Your task to perform on an android device: Go to accessibility settings Image 0: 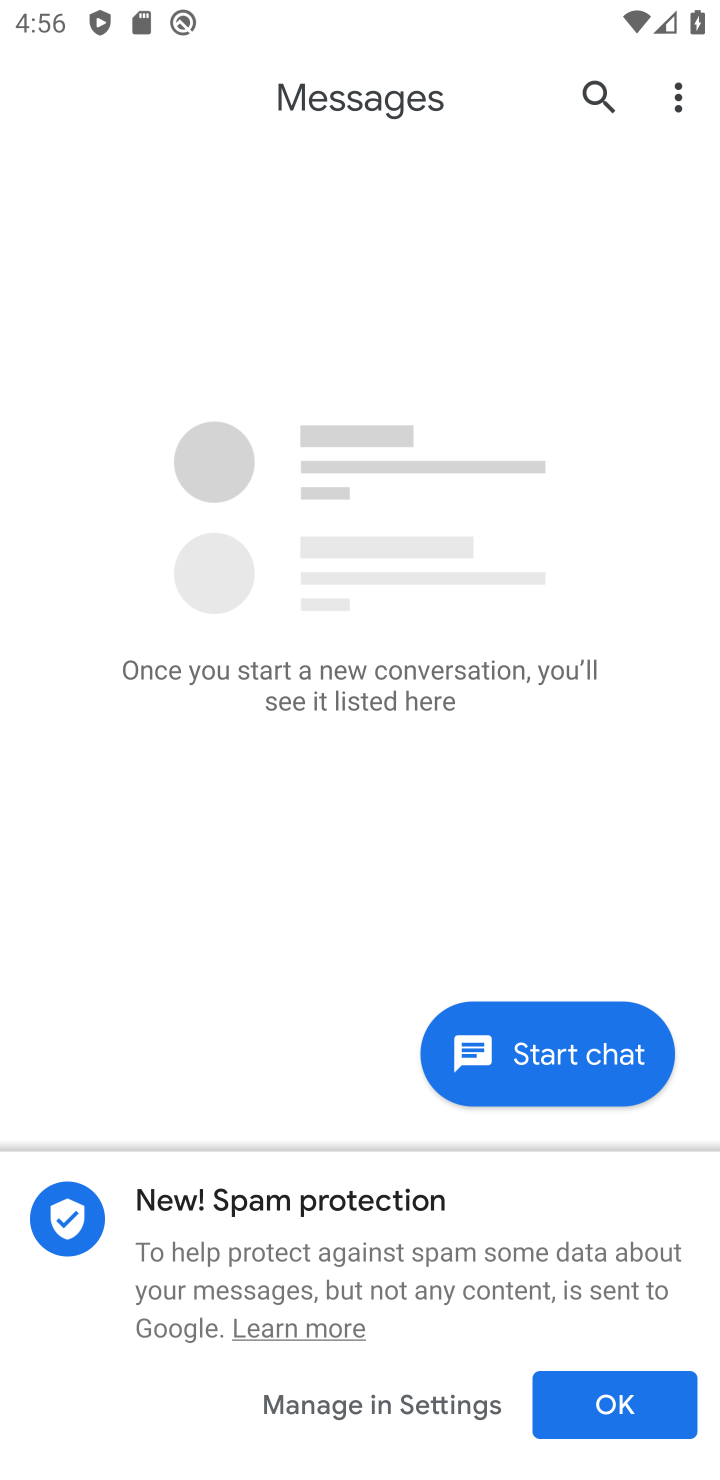
Step 0: press home button
Your task to perform on an android device: Go to accessibility settings Image 1: 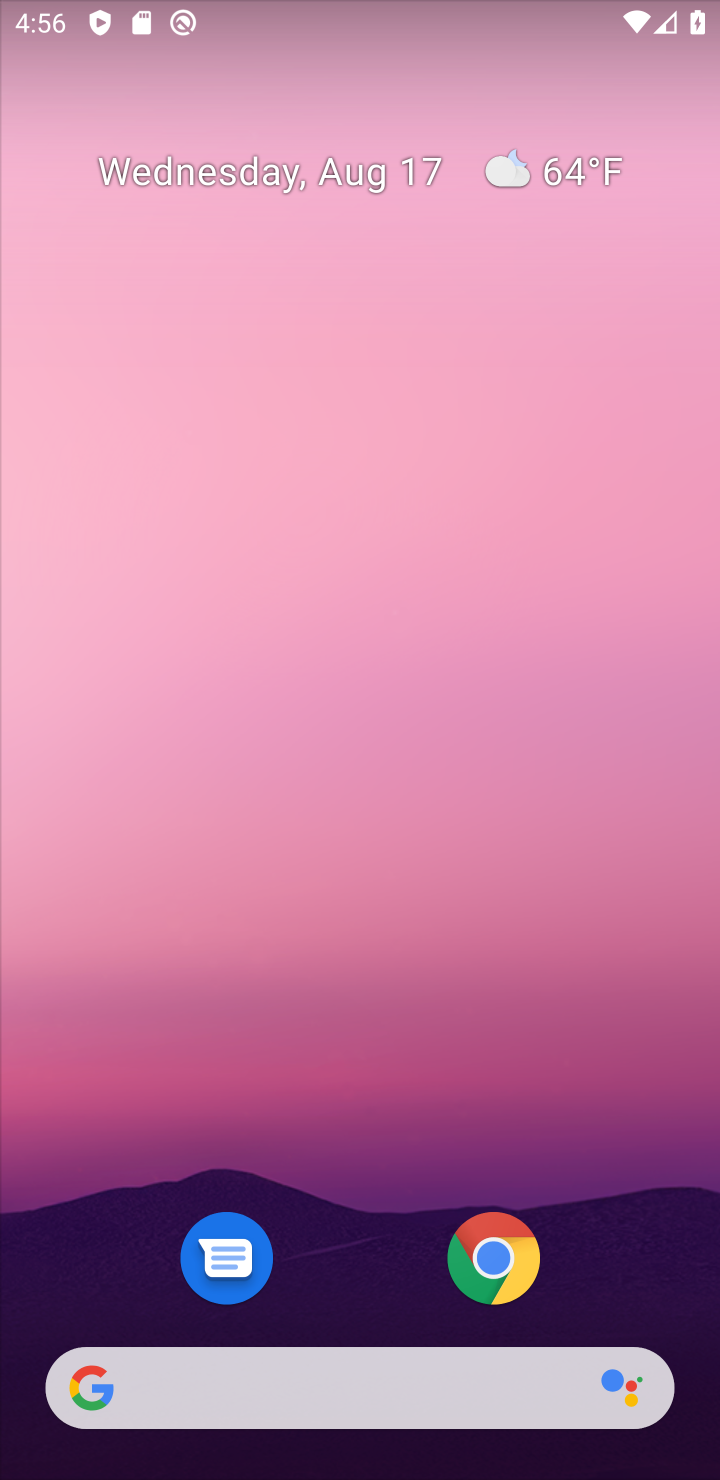
Step 1: drag from (422, 494) to (486, 251)
Your task to perform on an android device: Go to accessibility settings Image 2: 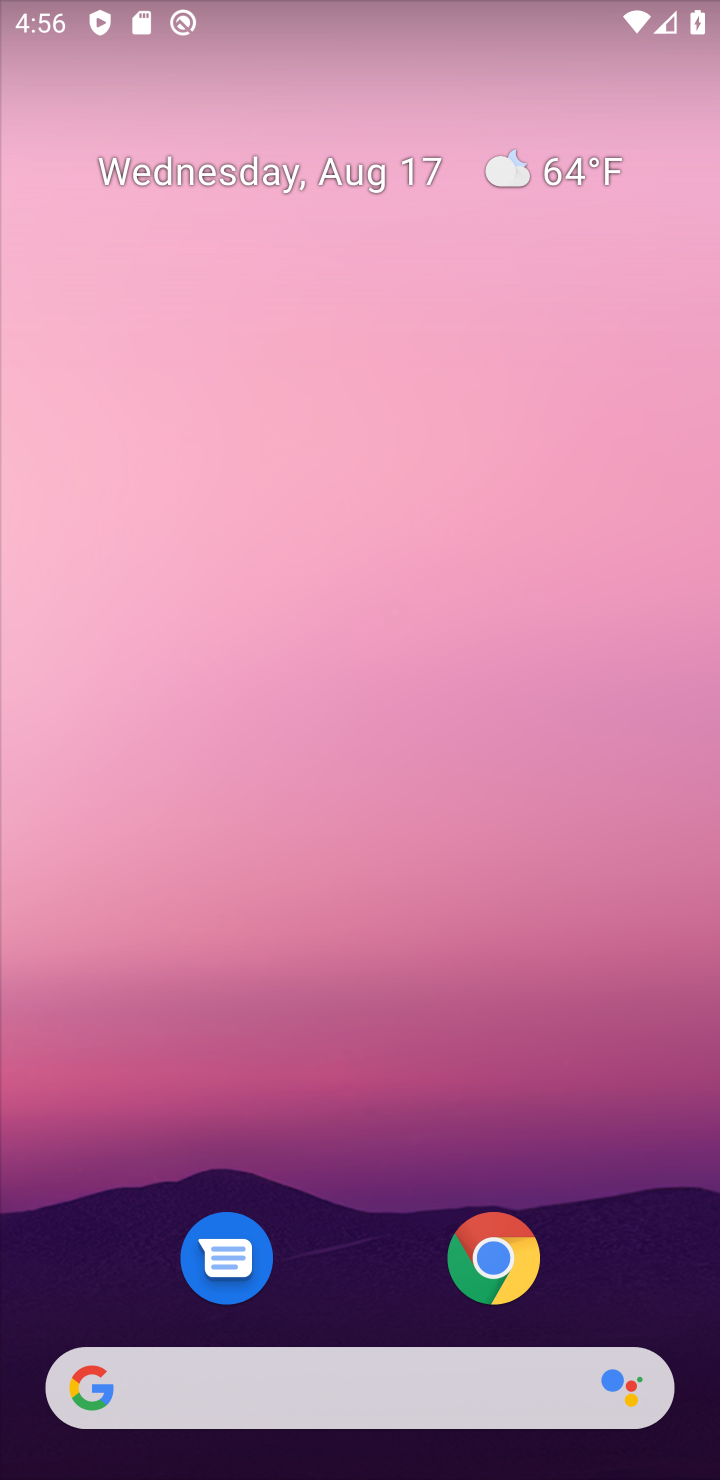
Step 2: drag from (345, 1205) to (487, 173)
Your task to perform on an android device: Go to accessibility settings Image 3: 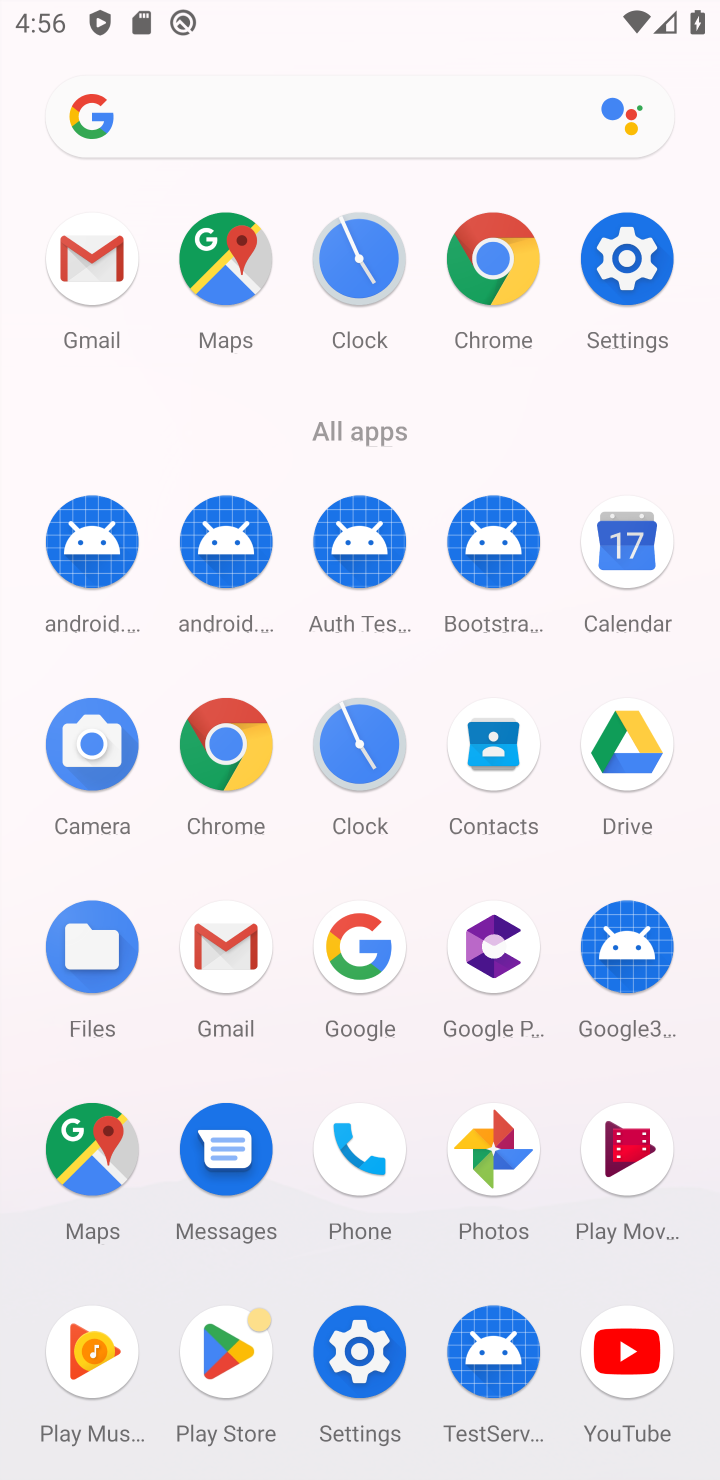
Step 3: click (371, 1334)
Your task to perform on an android device: Go to accessibility settings Image 4: 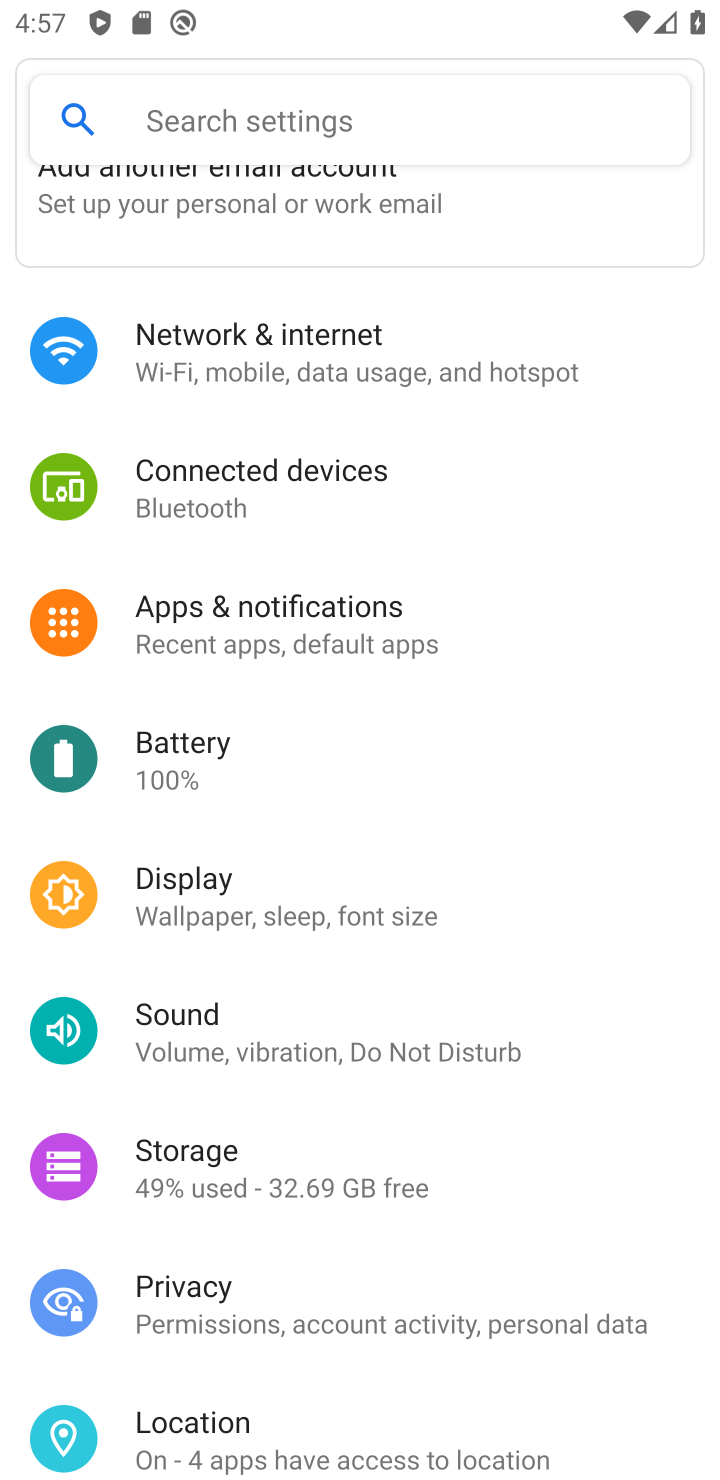
Step 4: drag from (549, 1187) to (647, 199)
Your task to perform on an android device: Go to accessibility settings Image 5: 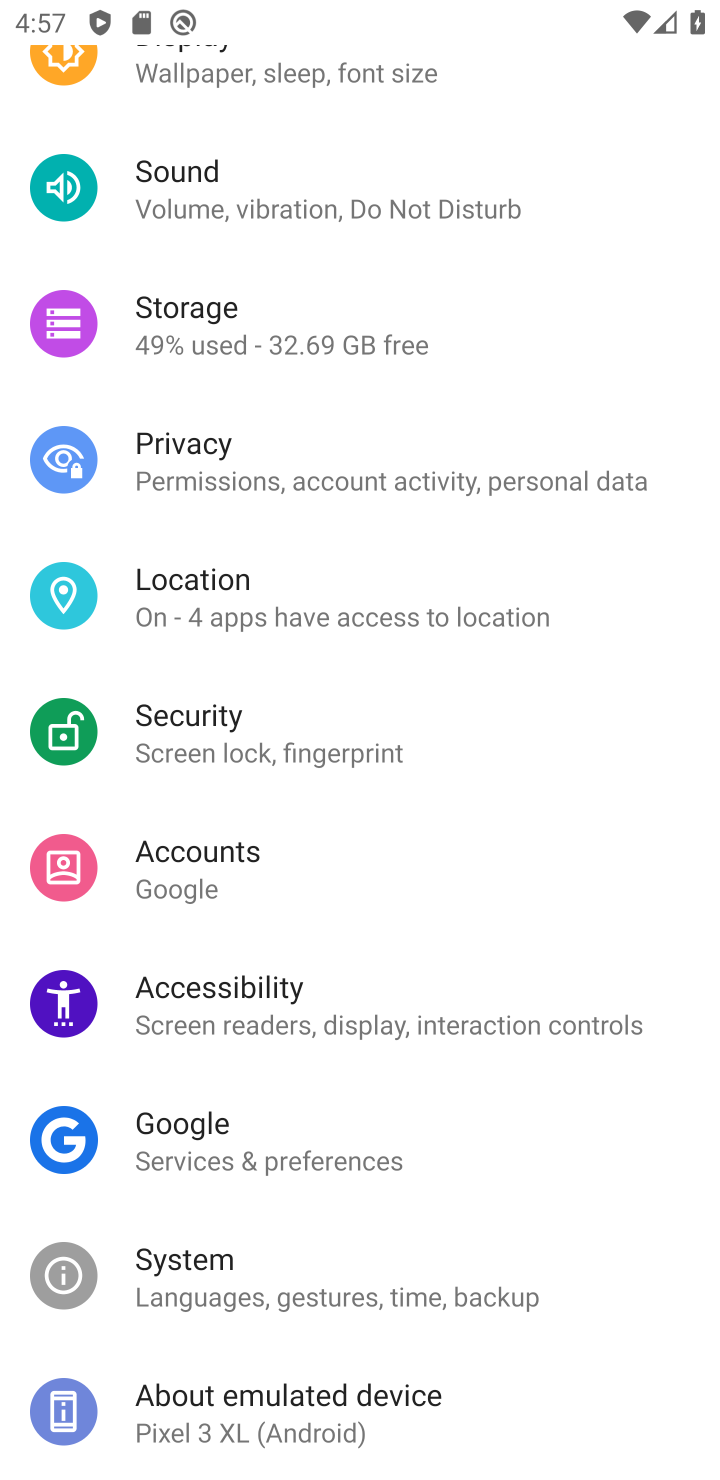
Step 5: click (299, 994)
Your task to perform on an android device: Go to accessibility settings Image 6: 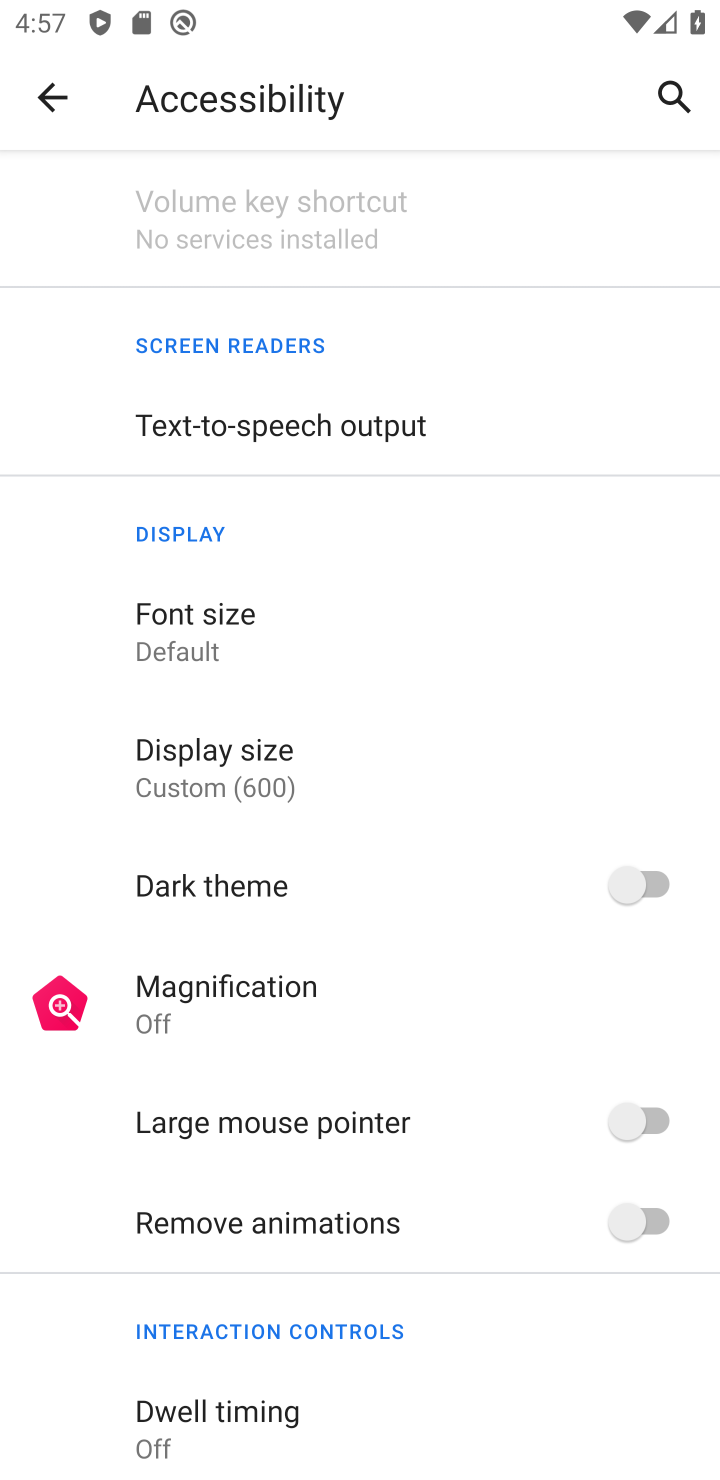
Step 6: task complete